Your task to perform on an android device: uninstall "Mercado Libre" Image 0: 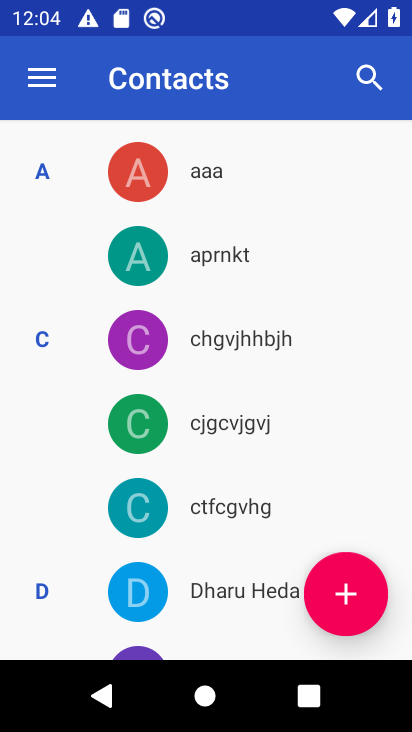
Step 0: press home button
Your task to perform on an android device: uninstall "Mercado Libre" Image 1: 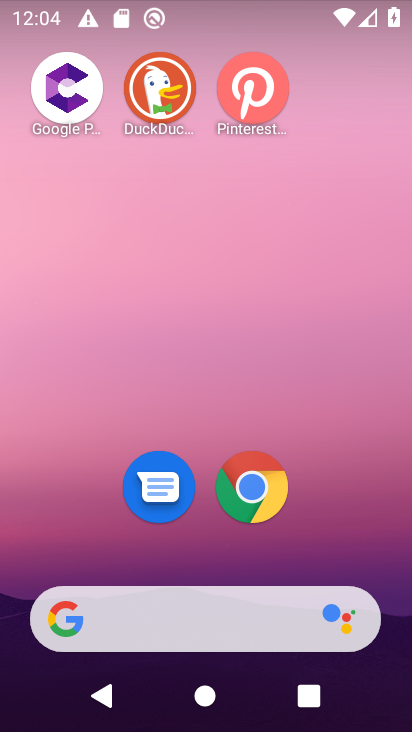
Step 1: drag from (193, 565) to (232, 168)
Your task to perform on an android device: uninstall "Mercado Libre" Image 2: 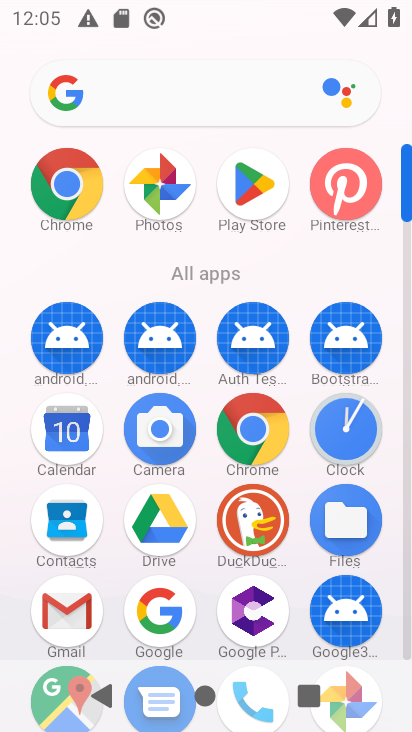
Step 2: click (274, 195)
Your task to perform on an android device: uninstall "Mercado Libre" Image 3: 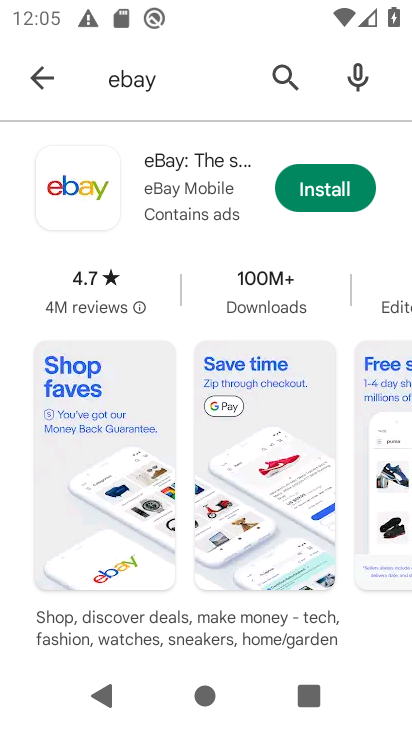
Step 3: click (192, 85)
Your task to perform on an android device: uninstall "Mercado Libre" Image 4: 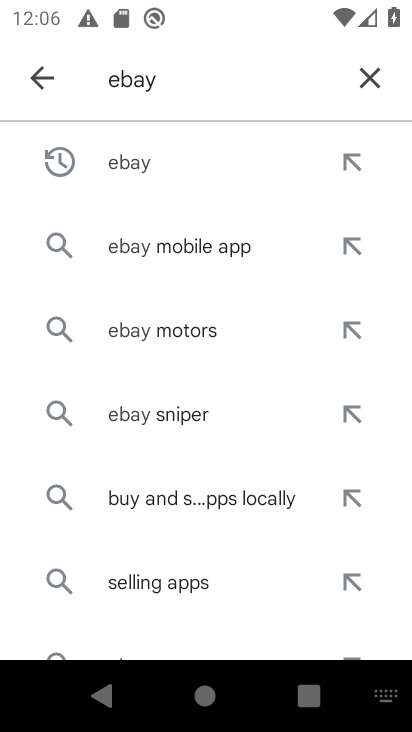
Step 4: click (371, 78)
Your task to perform on an android device: uninstall "Mercado Libre" Image 5: 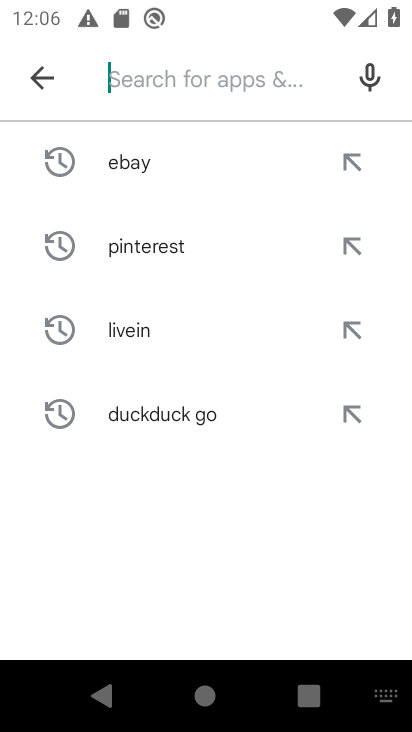
Step 5: type "mercado"
Your task to perform on an android device: uninstall "Mercado Libre" Image 6: 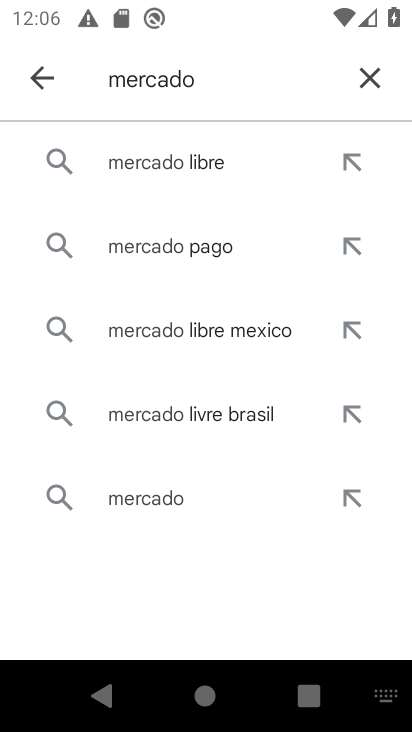
Step 6: click (163, 165)
Your task to perform on an android device: uninstall "Mercado Libre" Image 7: 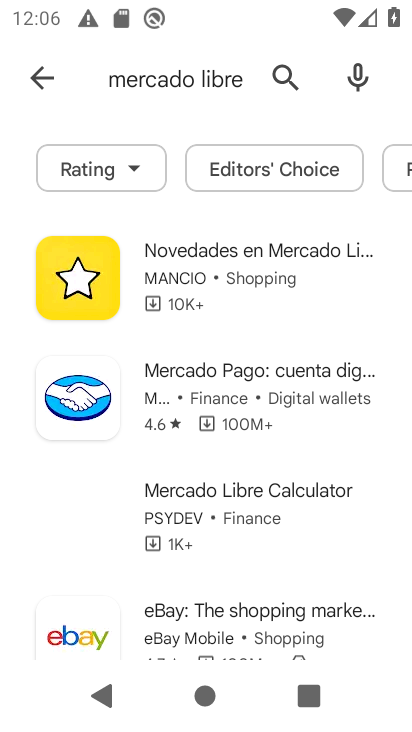
Step 7: task complete